Your task to perform on an android device: turn on sleep mode Image 0: 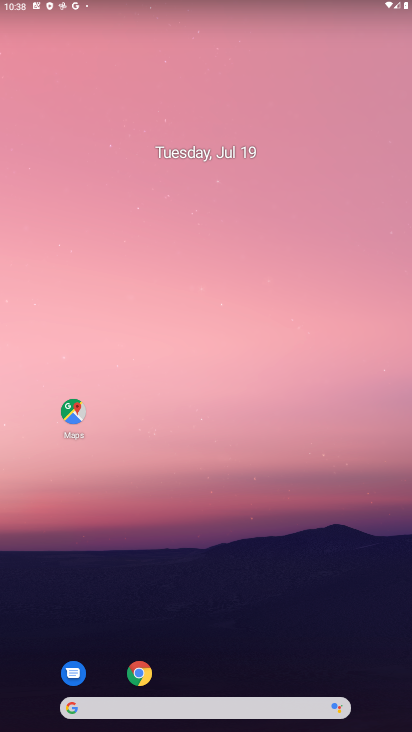
Step 0: drag from (272, 680) to (306, 58)
Your task to perform on an android device: turn on sleep mode Image 1: 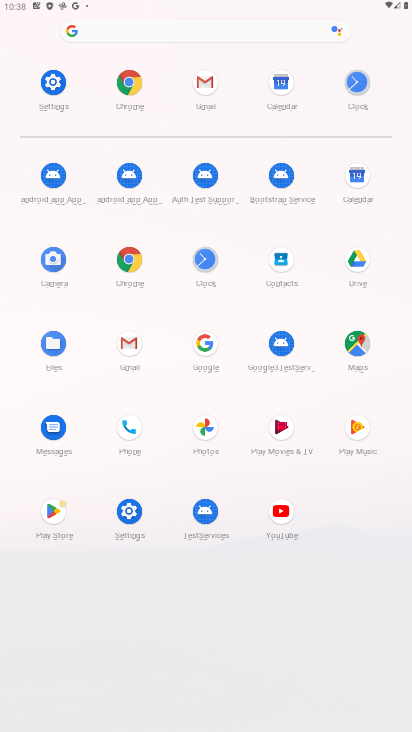
Step 1: click (52, 97)
Your task to perform on an android device: turn on sleep mode Image 2: 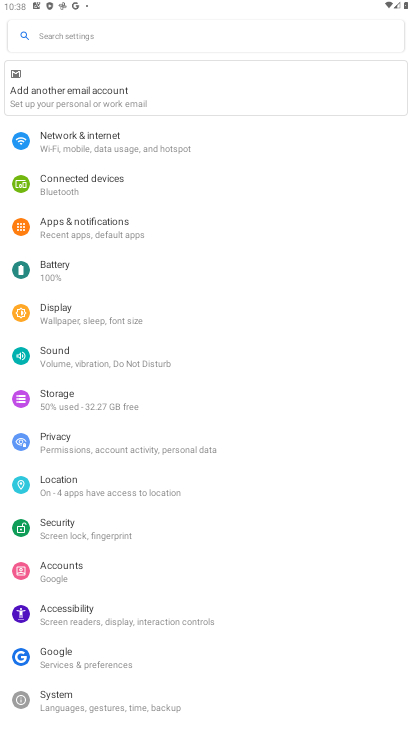
Step 2: click (151, 324)
Your task to perform on an android device: turn on sleep mode Image 3: 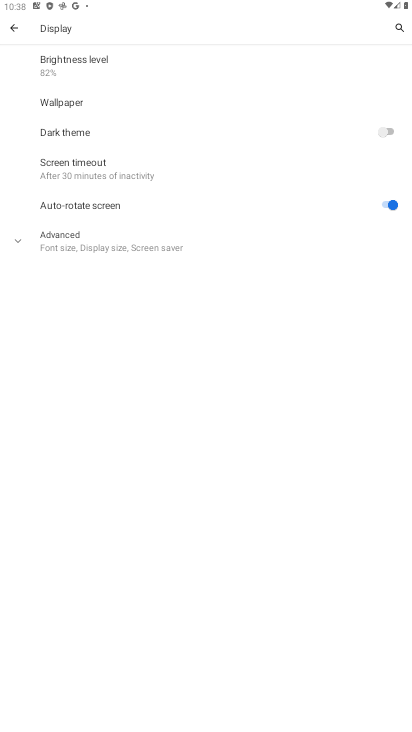
Step 3: task complete